Your task to perform on an android device: turn off picture-in-picture Image 0: 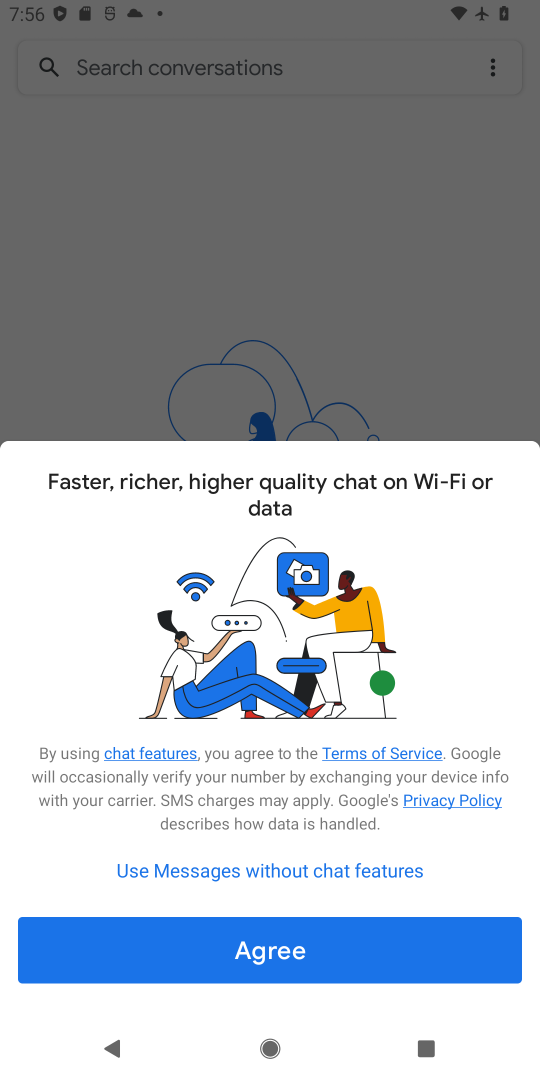
Step 0: press home button
Your task to perform on an android device: turn off picture-in-picture Image 1: 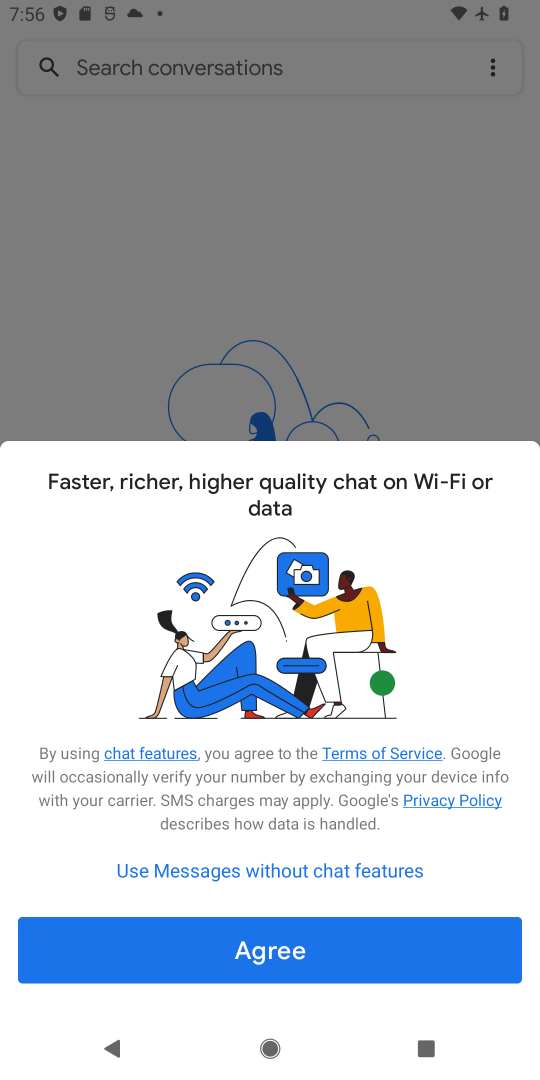
Step 1: press home button
Your task to perform on an android device: turn off picture-in-picture Image 2: 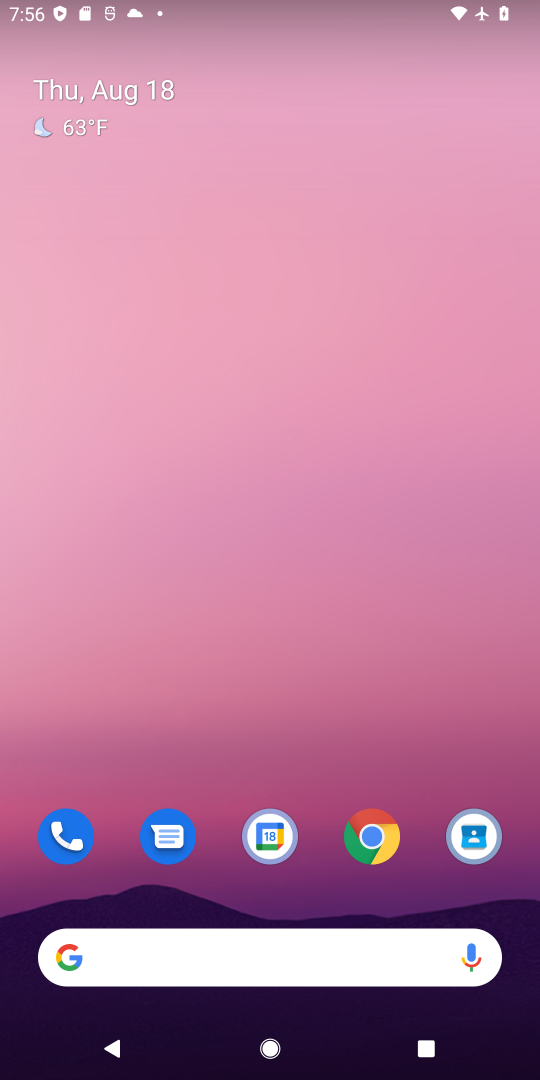
Step 2: drag from (204, 716) to (193, 28)
Your task to perform on an android device: turn off picture-in-picture Image 3: 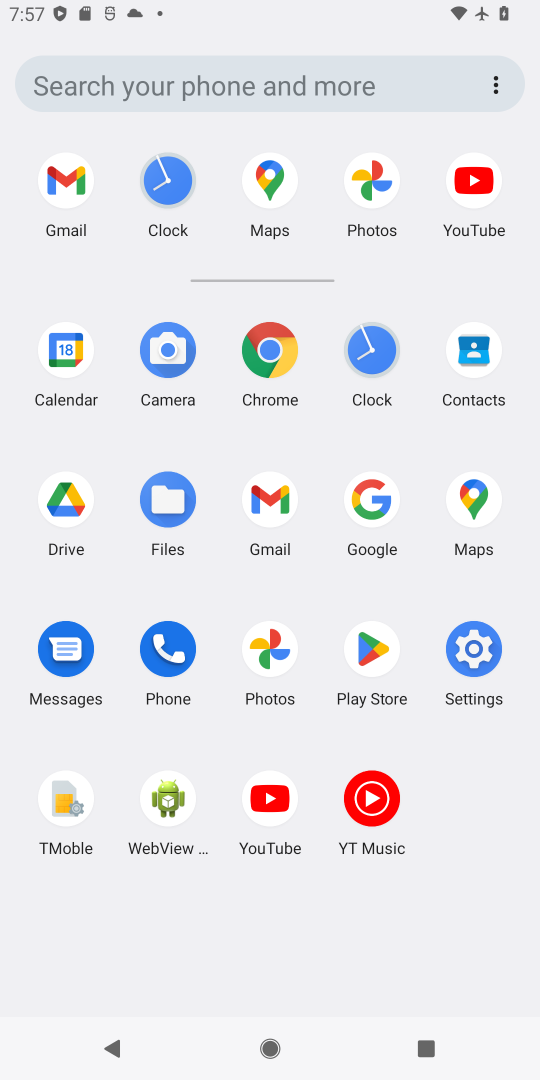
Step 3: click (250, 346)
Your task to perform on an android device: turn off picture-in-picture Image 4: 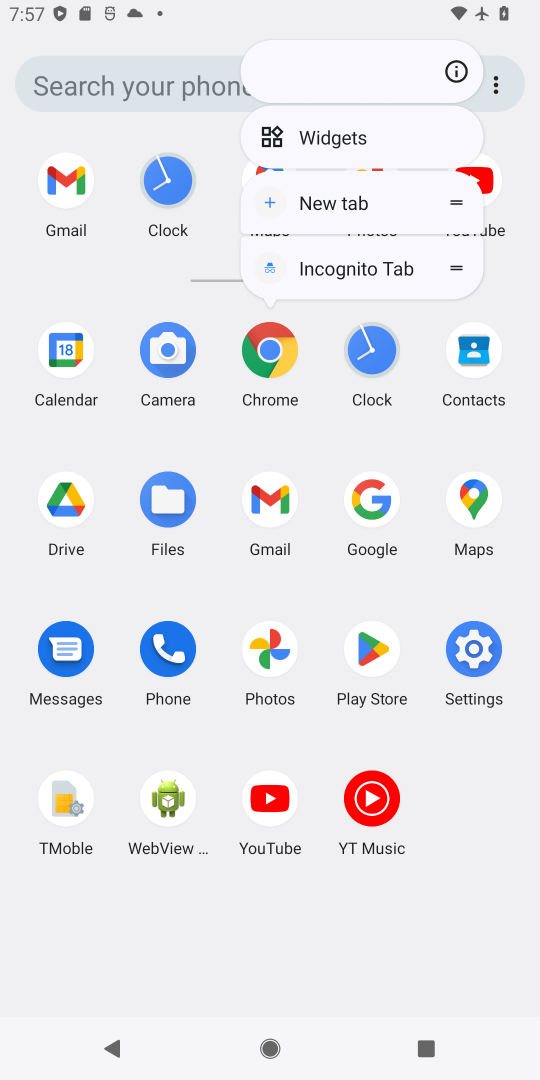
Step 4: click (451, 68)
Your task to perform on an android device: turn off picture-in-picture Image 5: 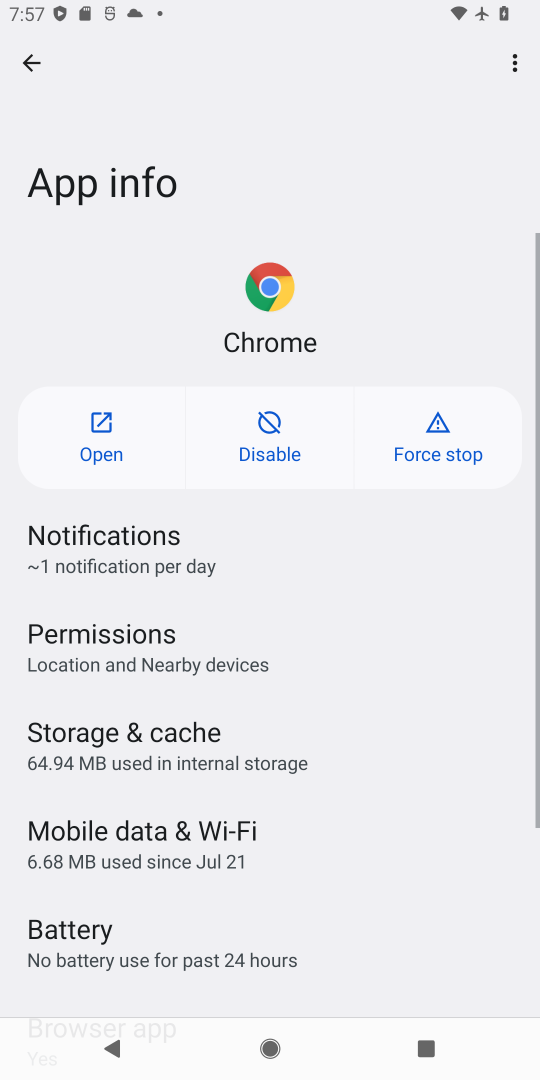
Step 5: drag from (274, 881) to (313, 225)
Your task to perform on an android device: turn off picture-in-picture Image 6: 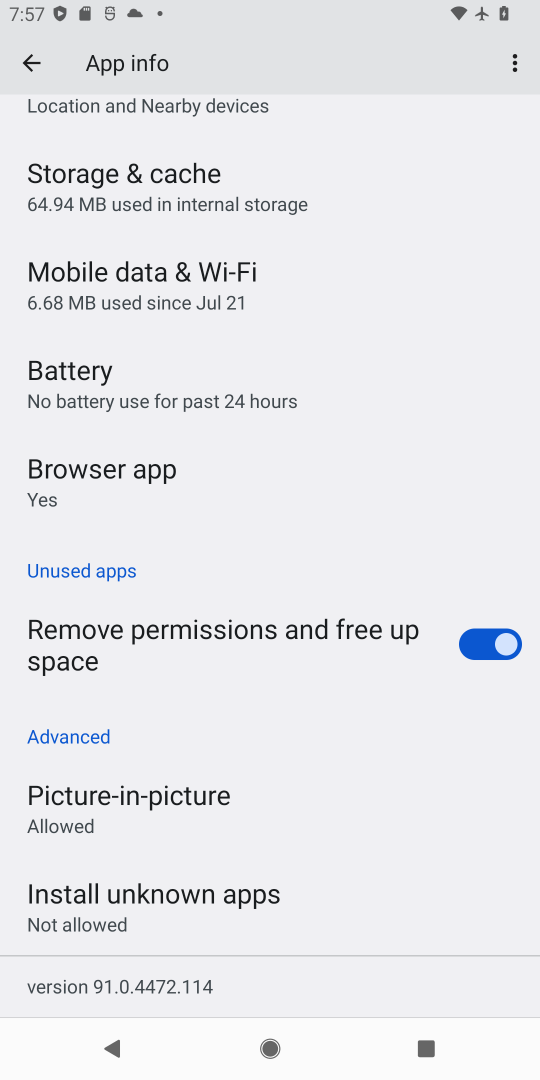
Step 6: click (168, 815)
Your task to perform on an android device: turn off picture-in-picture Image 7: 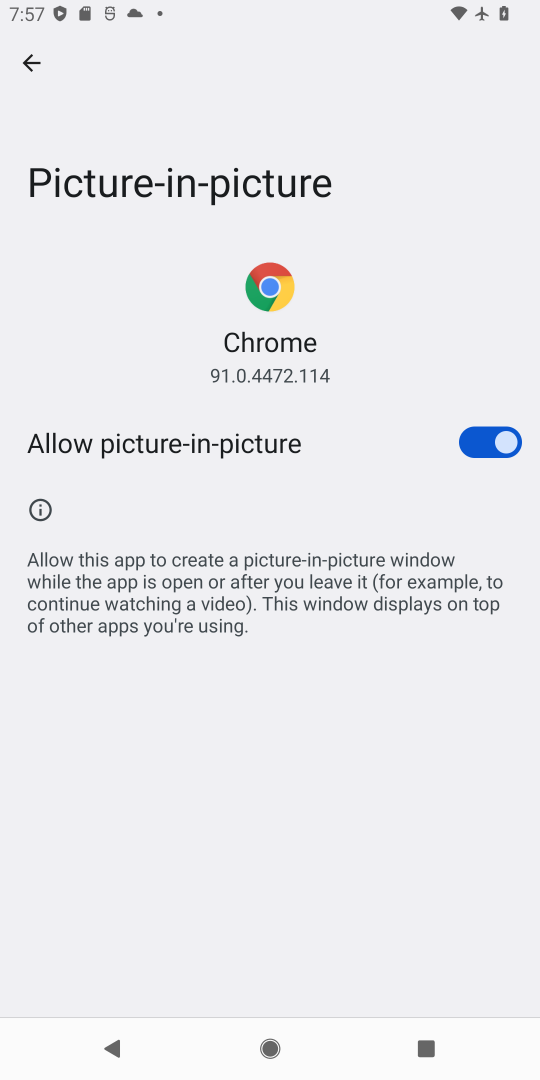
Step 7: click (474, 437)
Your task to perform on an android device: turn off picture-in-picture Image 8: 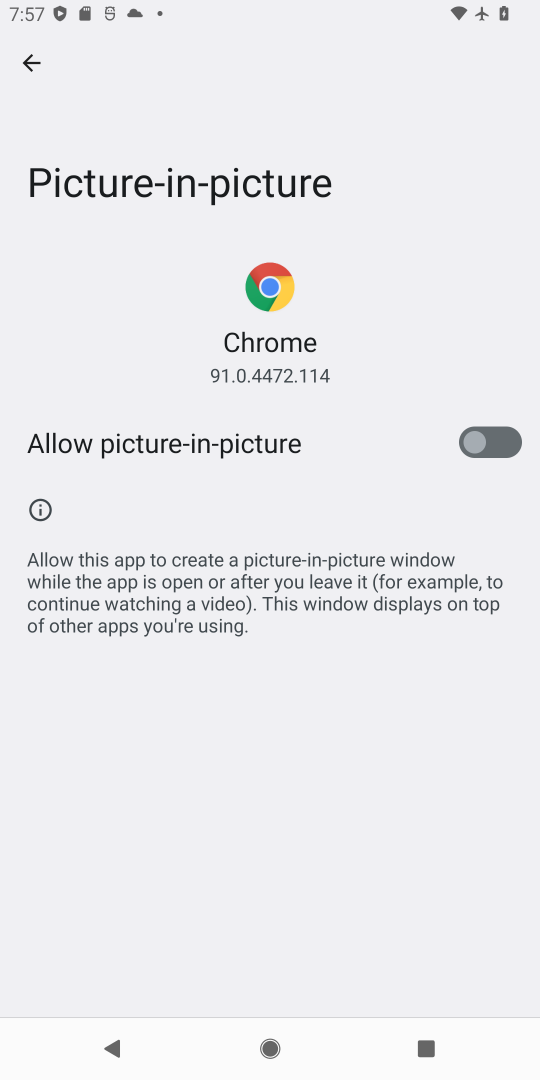
Step 8: task complete